Your task to perform on an android device: Go to privacy settings Image 0: 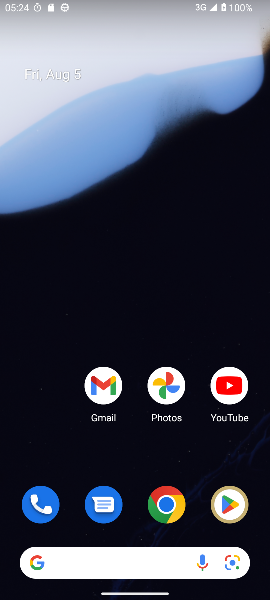
Step 0: drag from (113, 380) to (249, 162)
Your task to perform on an android device: Go to privacy settings Image 1: 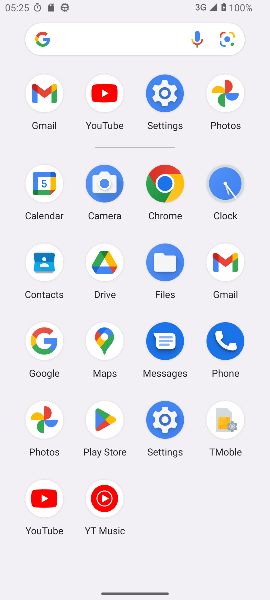
Step 1: click (173, 425)
Your task to perform on an android device: Go to privacy settings Image 2: 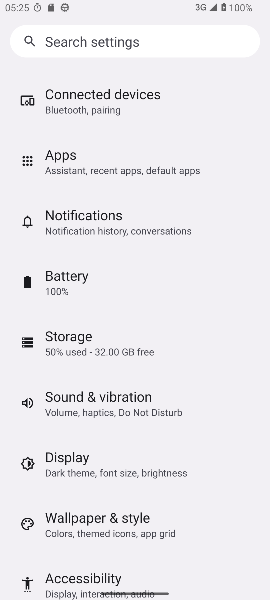
Step 2: drag from (183, 560) to (215, 464)
Your task to perform on an android device: Go to privacy settings Image 3: 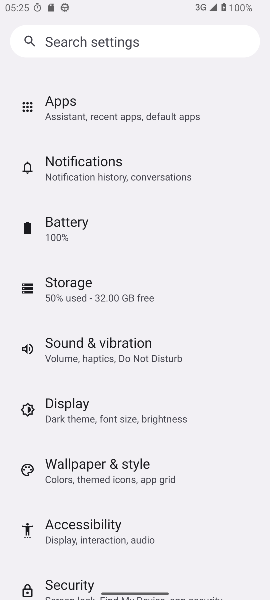
Step 3: drag from (208, 552) to (222, 278)
Your task to perform on an android device: Go to privacy settings Image 4: 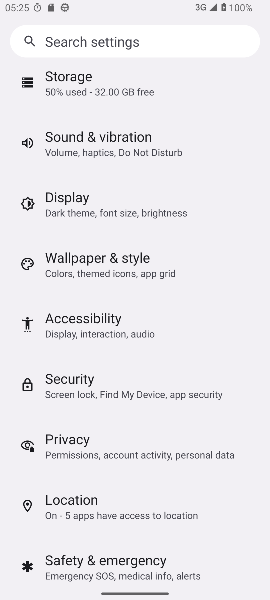
Step 4: click (59, 444)
Your task to perform on an android device: Go to privacy settings Image 5: 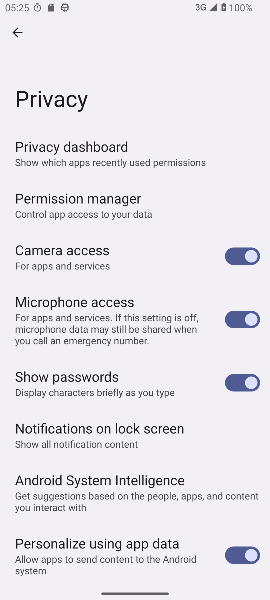
Step 5: task complete